Your task to perform on an android device: Open Youtube and go to the subscriptions tab Image 0: 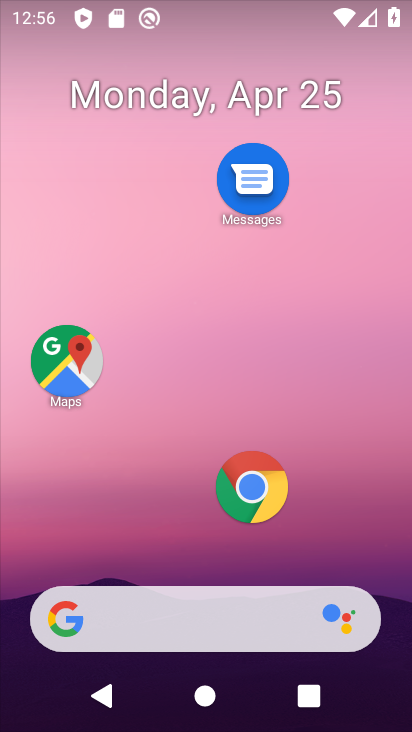
Step 0: drag from (294, 623) to (265, 1)
Your task to perform on an android device: Open Youtube and go to the subscriptions tab Image 1: 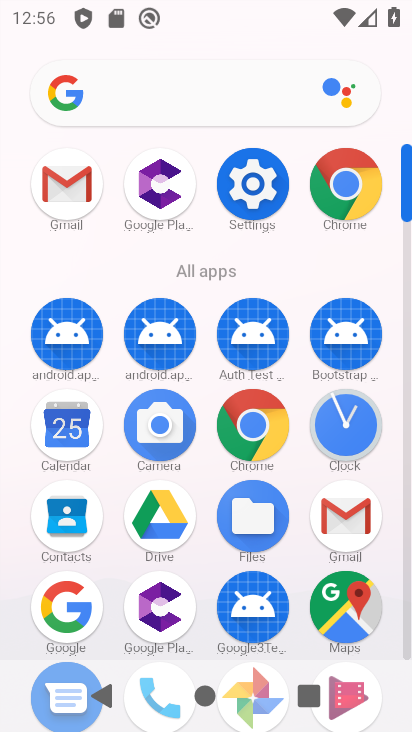
Step 1: drag from (296, 611) to (302, 178)
Your task to perform on an android device: Open Youtube and go to the subscriptions tab Image 2: 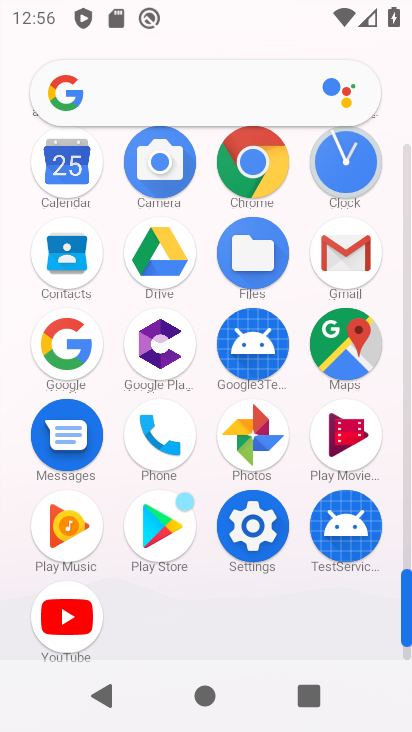
Step 2: click (69, 636)
Your task to perform on an android device: Open Youtube and go to the subscriptions tab Image 3: 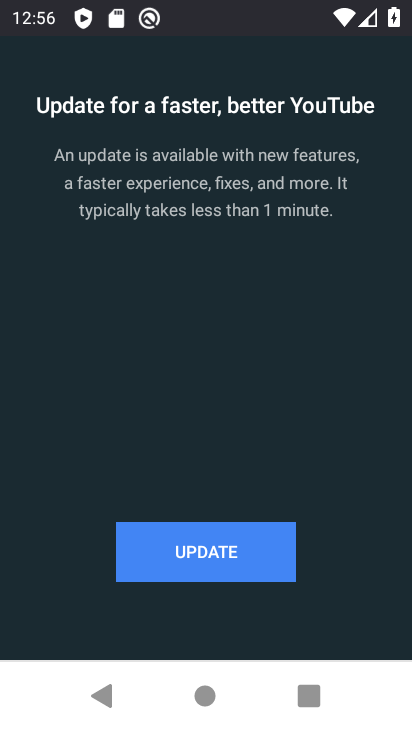
Step 3: click (180, 553)
Your task to perform on an android device: Open Youtube and go to the subscriptions tab Image 4: 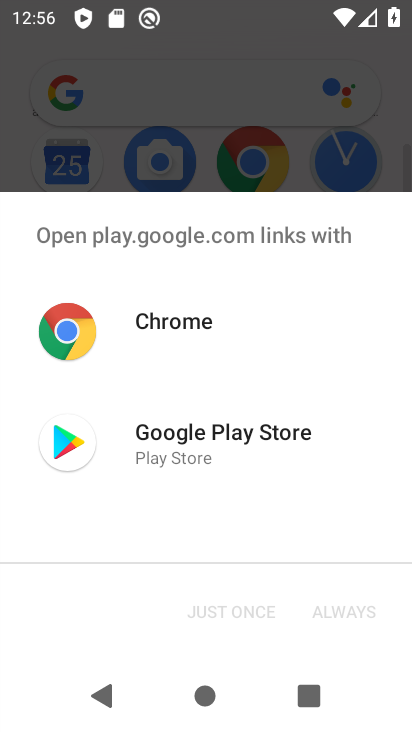
Step 4: click (192, 456)
Your task to perform on an android device: Open Youtube and go to the subscriptions tab Image 5: 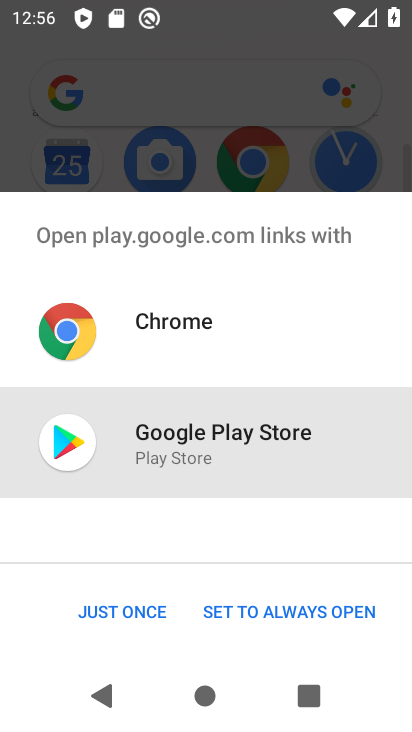
Step 5: click (154, 617)
Your task to perform on an android device: Open Youtube and go to the subscriptions tab Image 6: 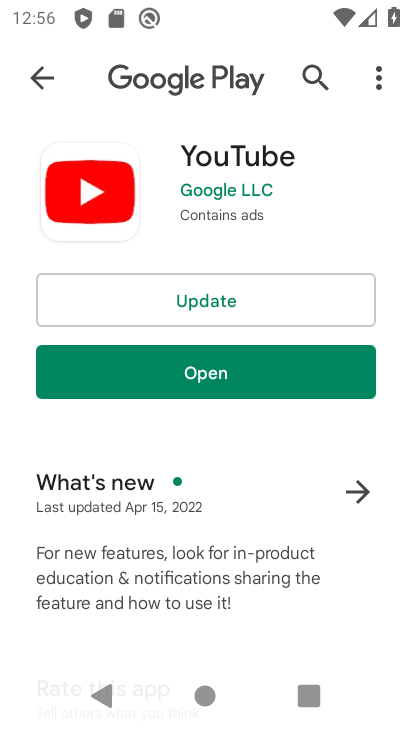
Step 6: click (277, 291)
Your task to perform on an android device: Open Youtube and go to the subscriptions tab Image 7: 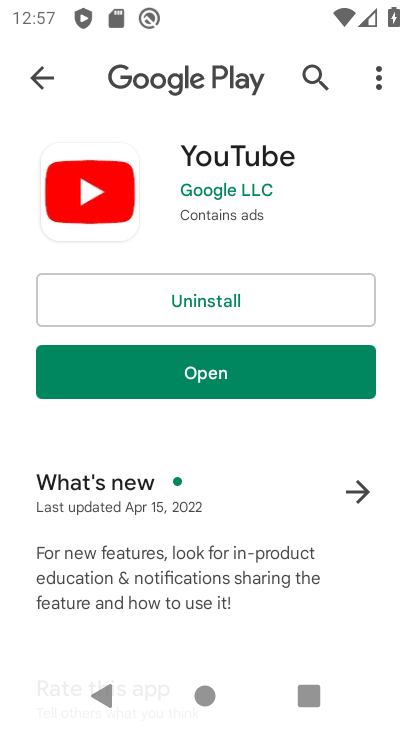
Step 7: click (259, 387)
Your task to perform on an android device: Open Youtube and go to the subscriptions tab Image 8: 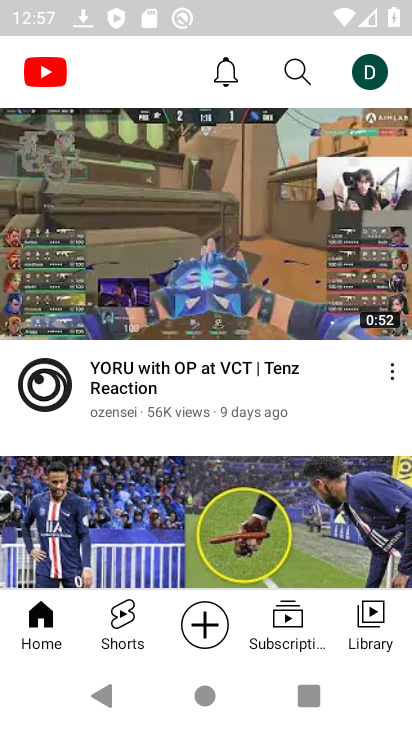
Step 8: click (279, 627)
Your task to perform on an android device: Open Youtube and go to the subscriptions tab Image 9: 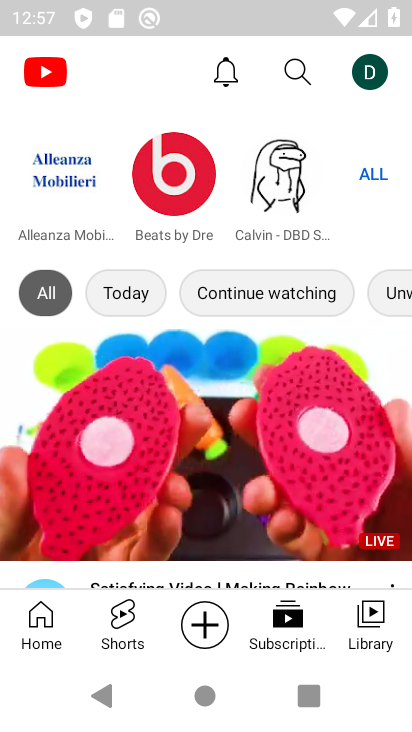
Step 9: task complete